Your task to perform on an android device: set default search engine in the chrome app Image 0: 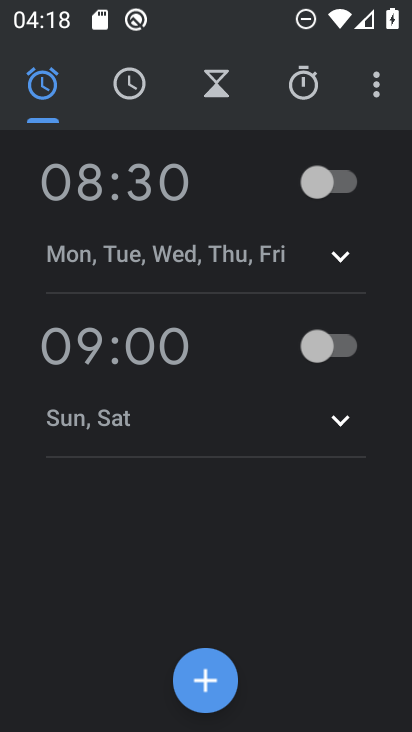
Step 0: press home button
Your task to perform on an android device: set default search engine in the chrome app Image 1: 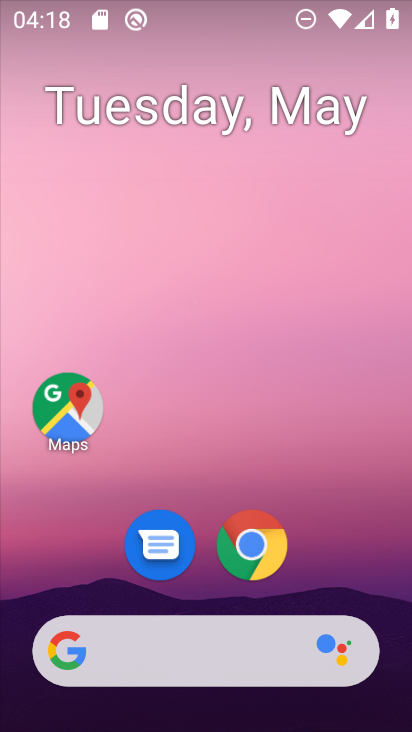
Step 1: click (257, 542)
Your task to perform on an android device: set default search engine in the chrome app Image 2: 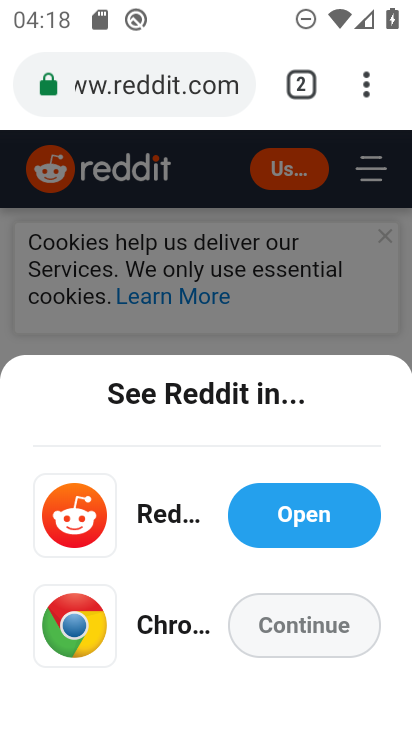
Step 2: click (359, 91)
Your task to perform on an android device: set default search engine in the chrome app Image 3: 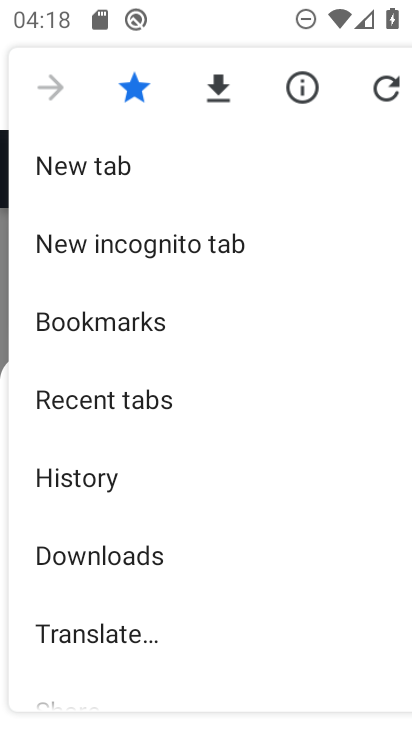
Step 3: drag from (197, 613) to (251, 261)
Your task to perform on an android device: set default search engine in the chrome app Image 4: 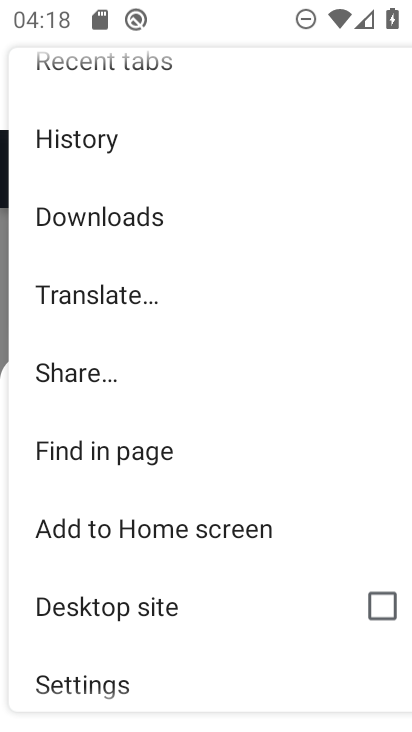
Step 4: drag from (204, 664) to (277, 301)
Your task to perform on an android device: set default search engine in the chrome app Image 5: 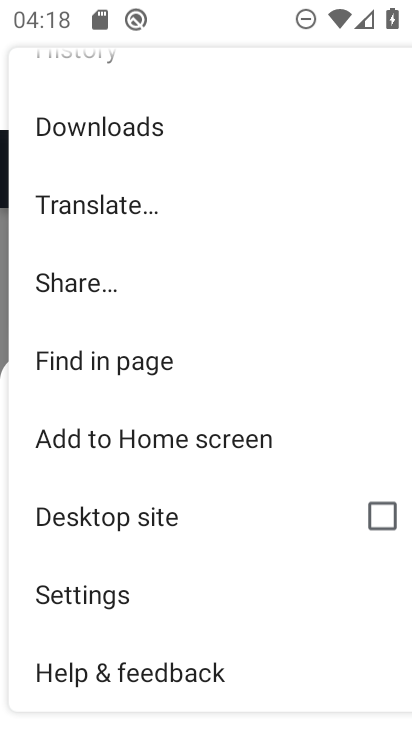
Step 5: click (88, 595)
Your task to perform on an android device: set default search engine in the chrome app Image 6: 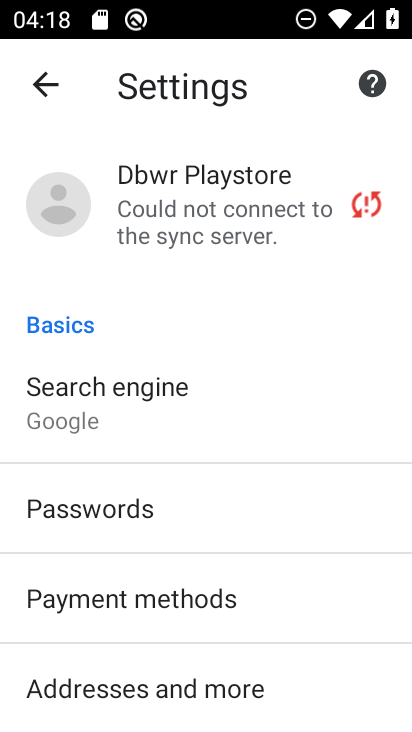
Step 6: click (52, 396)
Your task to perform on an android device: set default search engine in the chrome app Image 7: 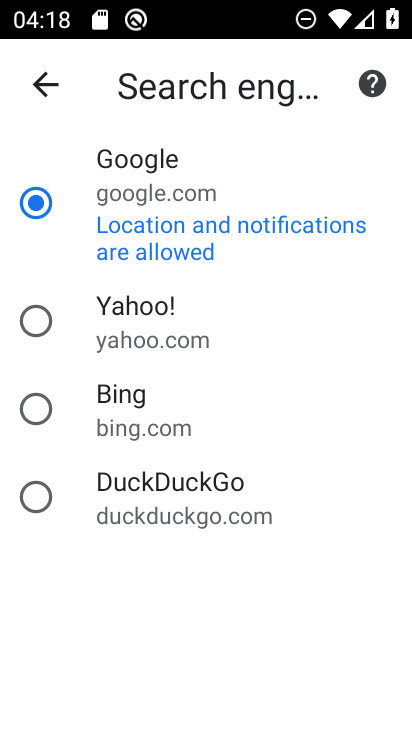
Step 7: click (47, 323)
Your task to perform on an android device: set default search engine in the chrome app Image 8: 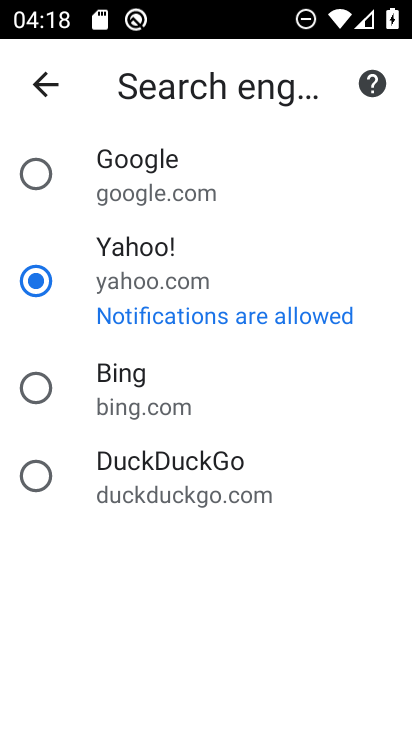
Step 8: task complete